Your task to perform on an android device: Open Chrome and go to the settings page Image 0: 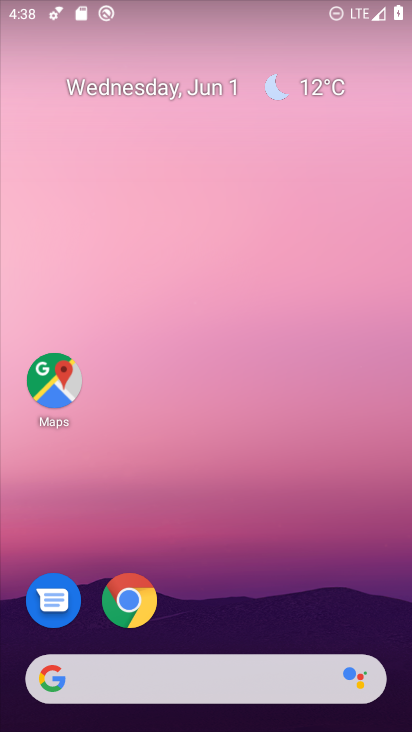
Step 0: click (129, 601)
Your task to perform on an android device: Open Chrome and go to the settings page Image 1: 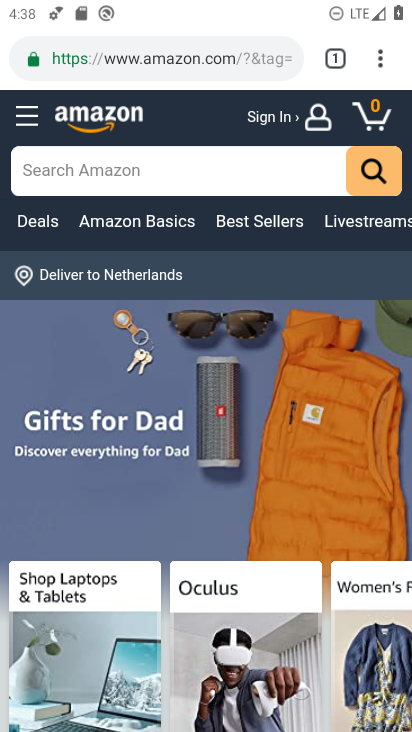
Step 1: click (379, 55)
Your task to perform on an android device: Open Chrome and go to the settings page Image 2: 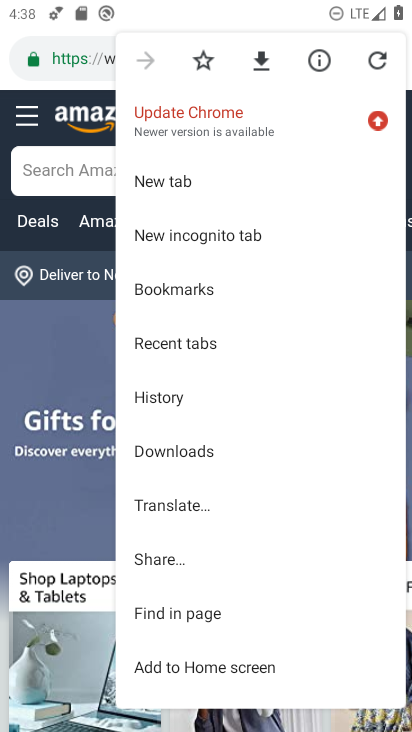
Step 2: drag from (275, 632) to (295, 261)
Your task to perform on an android device: Open Chrome and go to the settings page Image 3: 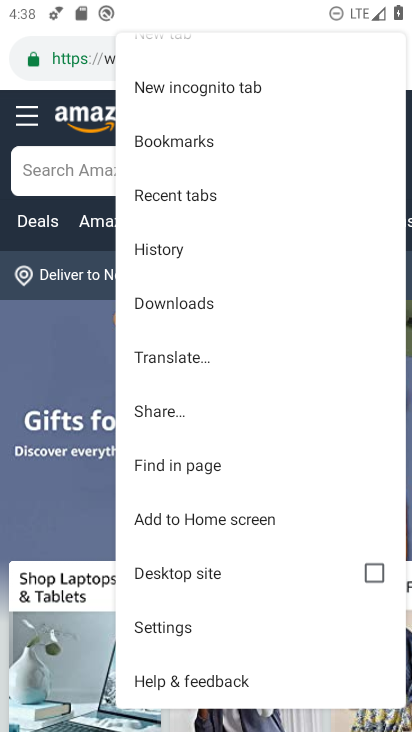
Step 3: click (167, 631)
Your task to perform on an android device: Open Chrome and go to the settings page Image 4: 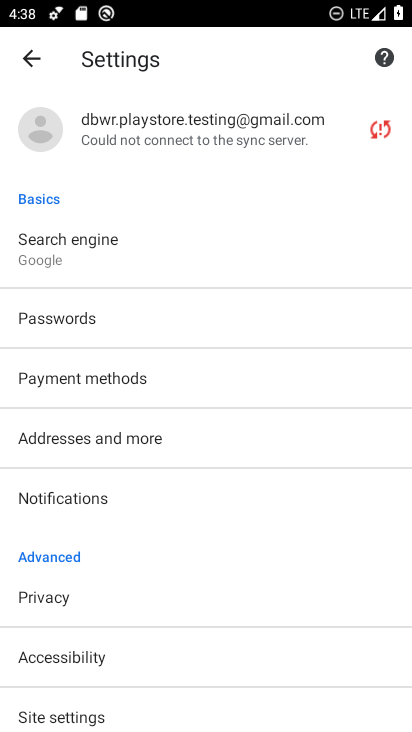
Step 4: task complete